Your task to perform on an android device: open wifi settings Image 0: 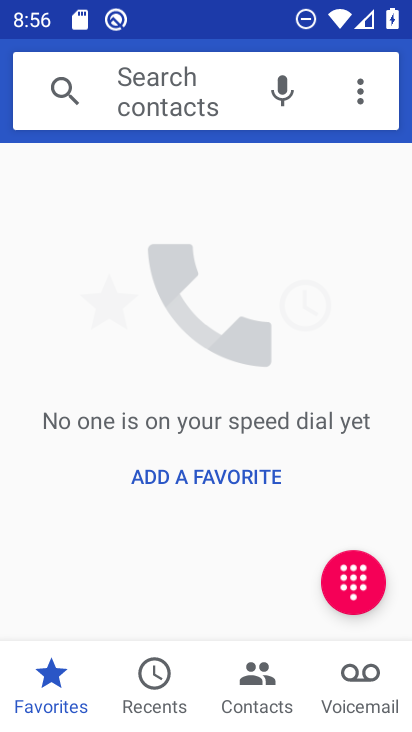
Step 0: press home button
Your task to perform on an android device: open wifi settings Image 1: 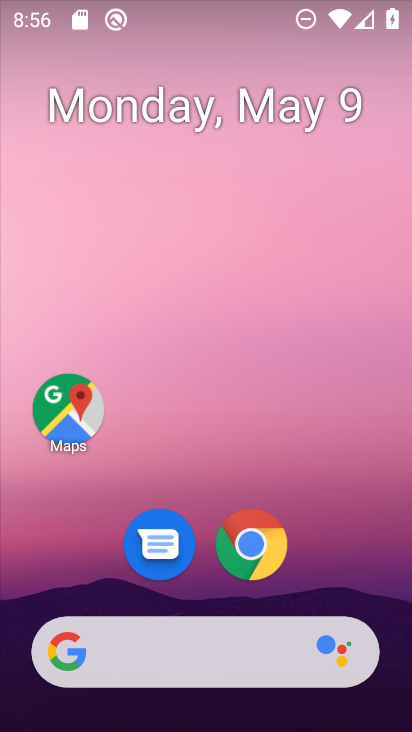
Step 1: drag from (310, 539) to (212, 2)
Your task to perform on an android device: open wifi settings Image 2: 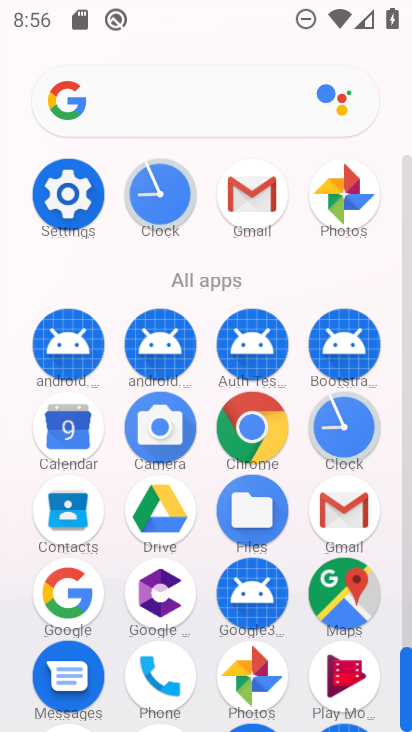
Step 2: click (66, 193)
Your task to perform on an android device: open wifi settings Image 3: 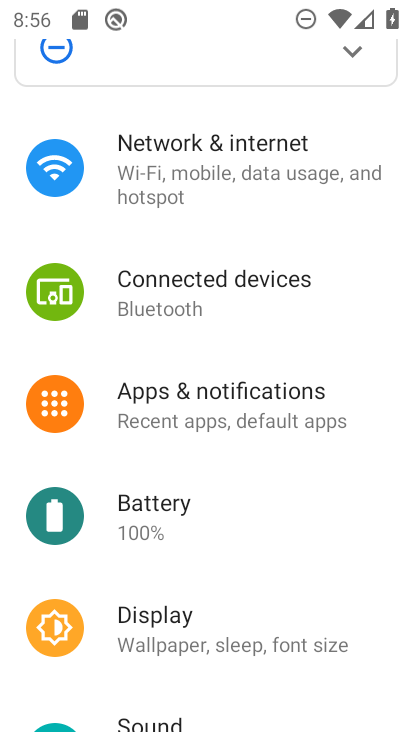
Step 3: click (177, 150)
Your task to perform on an android device: open wifi settings Image 4: 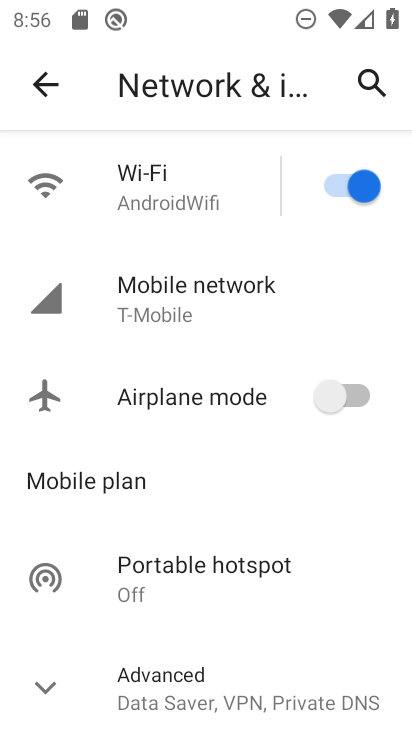
Step 4: click (126, 180)
Your task to perform on an android device: open wifi settings Image 5: 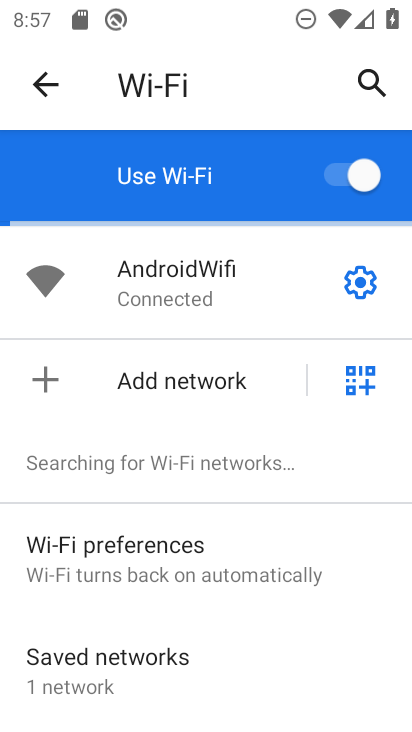
Step 5: task complete